Your task to perform on an android device: add a contact in the contacts app Image 0: 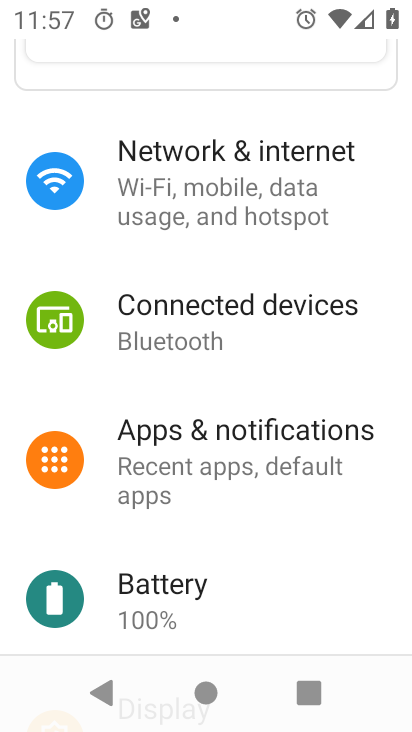
Step 0: press home button
Your task to perform on an android device: add a contact in the contacts app Image 1: 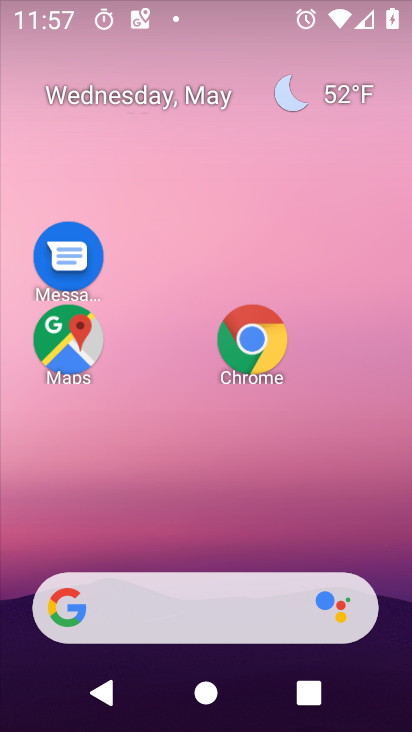
Step 1: drag from (226, 545) to (180, 71)
Your task to perform on an android device: add a contact in the contacts app Image 2: 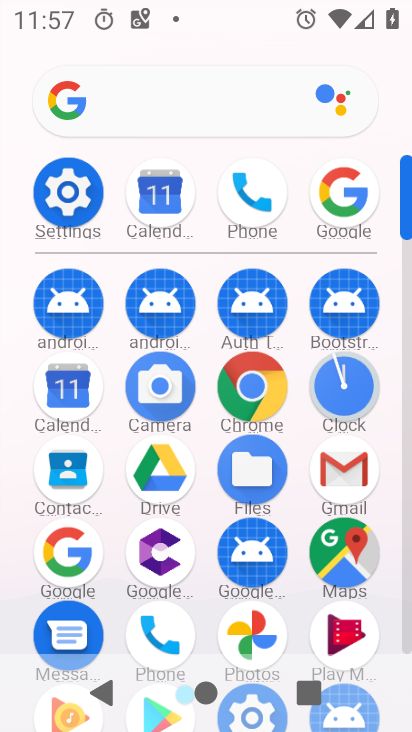
Step 2: click (65, 473)
Your task to perform on an android device: add a contact in the contacts app Image 3: 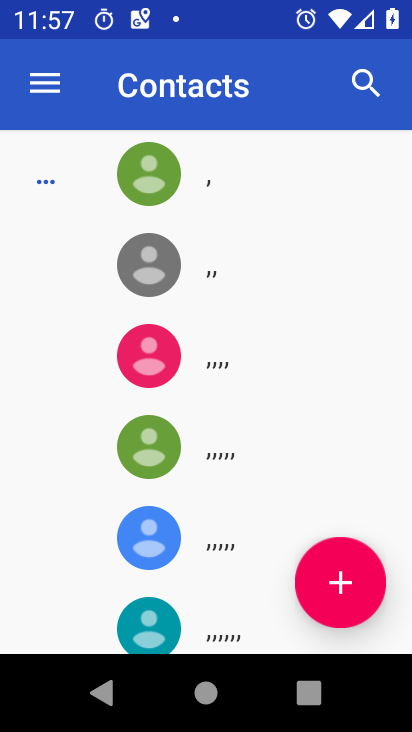
Step 3: click (338, 566)
Your task to perform on an android device: add a contact in the contacts app Image 4: 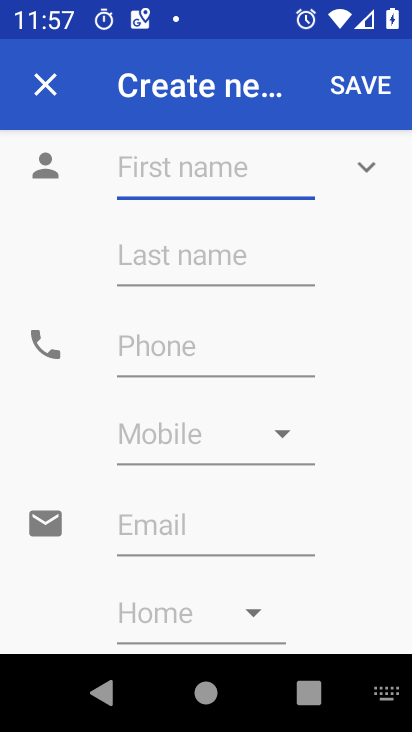
Step 4: type "jhdgh"
Your task to perform on an android device: add a contact in the contacts app Image 5: 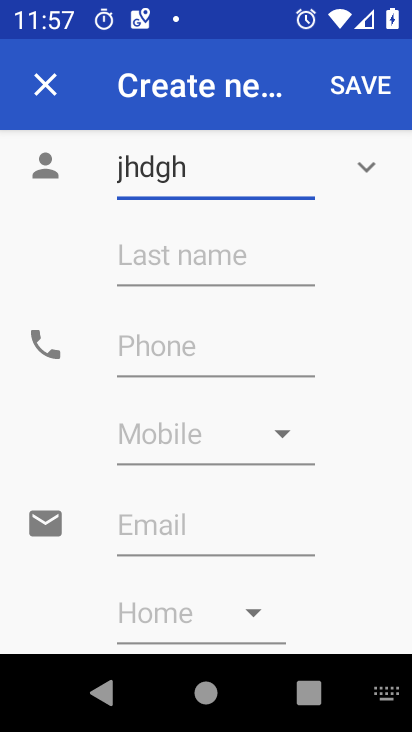
Step 5: click (370, 96)
Your task to perform on an android device: add a contact in the contacts app Image 6: 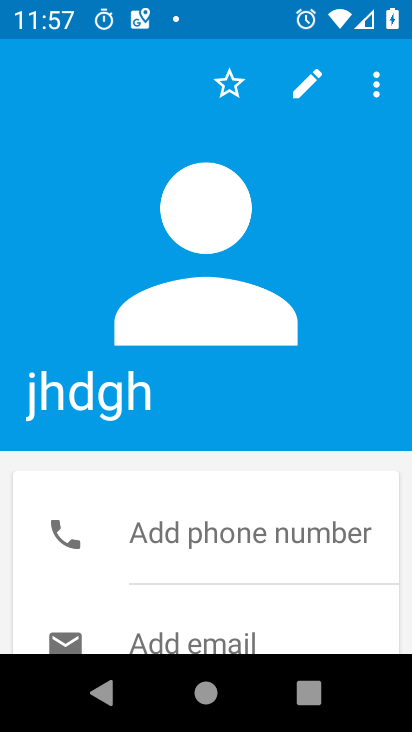
Step 6: task complete